Your task to perform on an android device: Open accessibility settings Image 0: 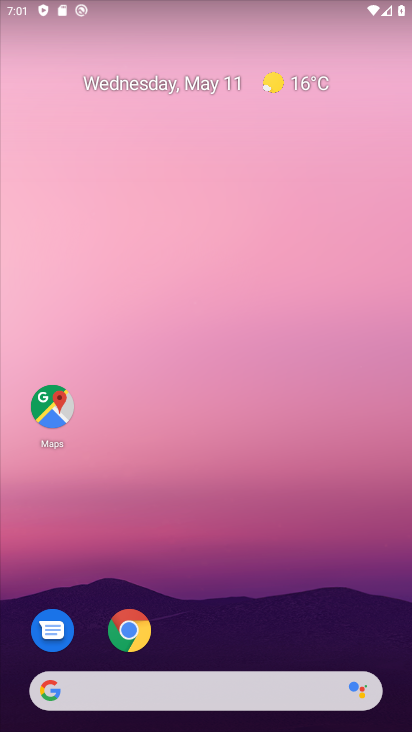
Step 0: drag from (256, 670) to (263, 149)
Your task to perform on an android device: Open accessibility settings Image 1: 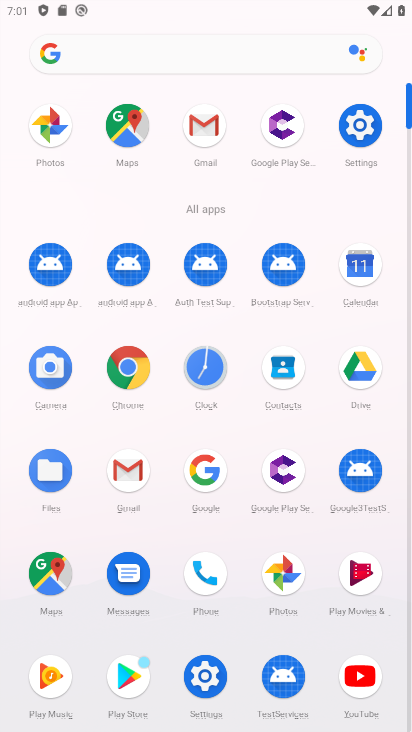
Step 1: click (371, 124)
Your task to perform on an android device: Open accessibility settings Image 2: 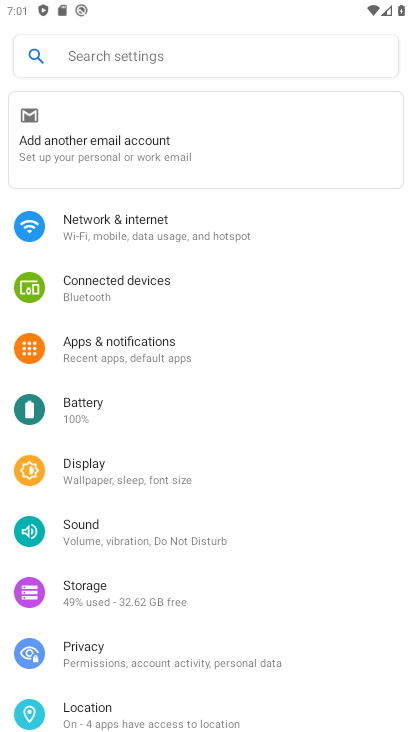
Step 2: drag from (160, 622) to (160, 144)
Your task to perform on an android device: Open accessibility settings Image 3: 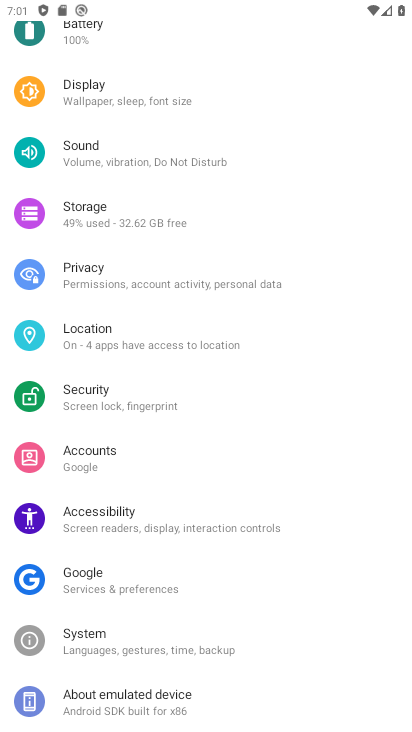
Step 3: click (145, 526)
Your task to perform on an android device: Open accessibility settings Image 4: 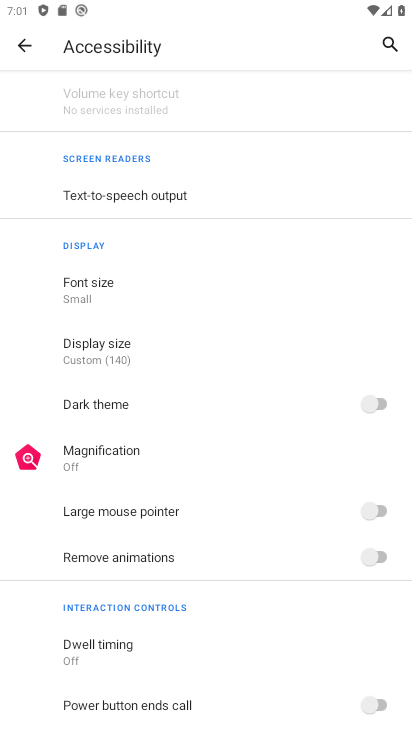
Step 4: task complete